Your task to perform on an android device: open chrome privacy settings Image 0: 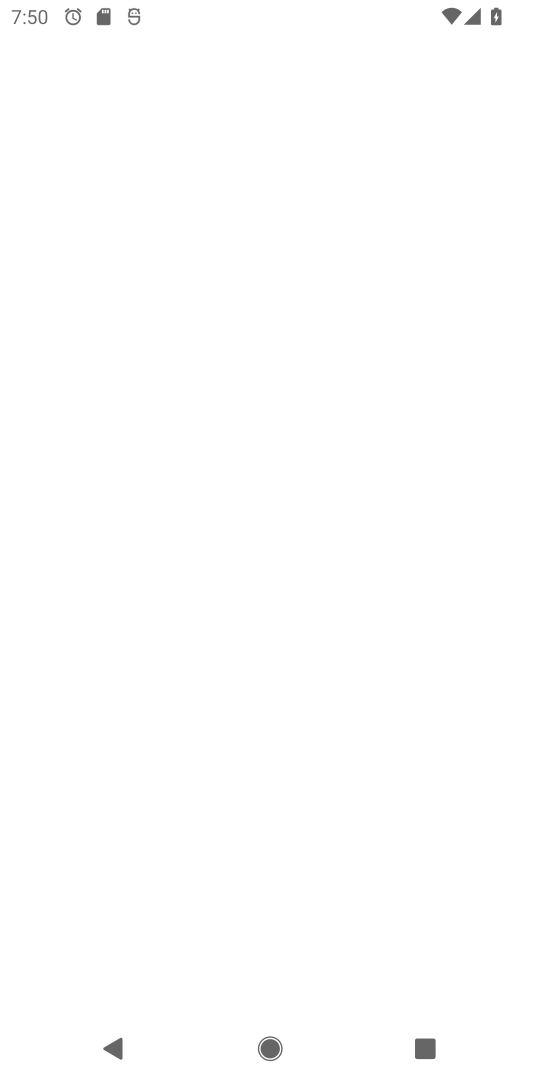
Step 0: press home button
Your task to perform on an android device: open chrome privacy settings Image 1: 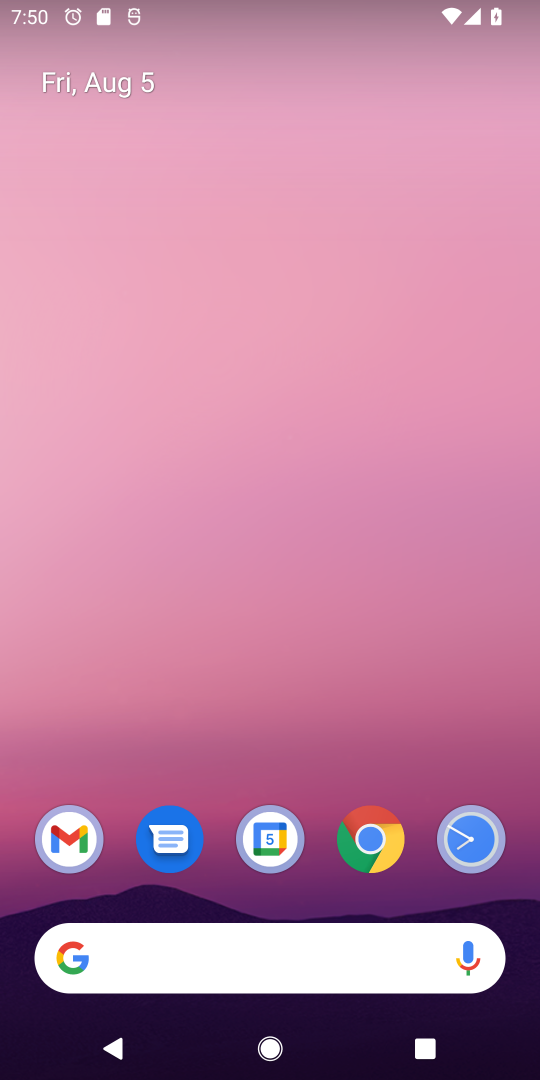
Step 1: click (363, 814)
Your task to perform on an android device: open chrome privacy settings Image 2: 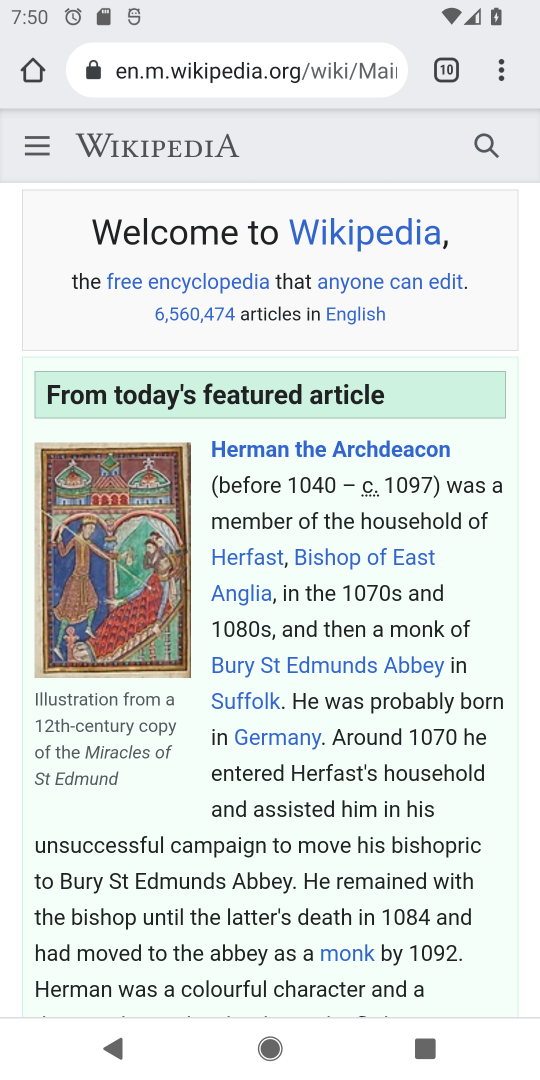
Step 2: click (503, 67)
Your task to perform on an android device: open chrome privacy settings Image 3: 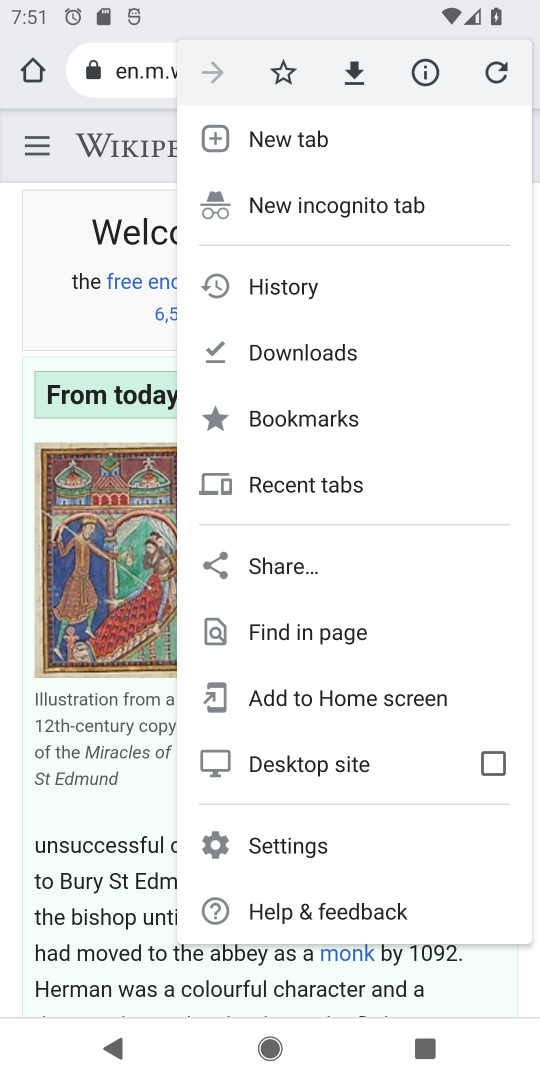
Step 3: click (305, 840)
Your task to perform on an android device: open chrome privacy settings Image 4: 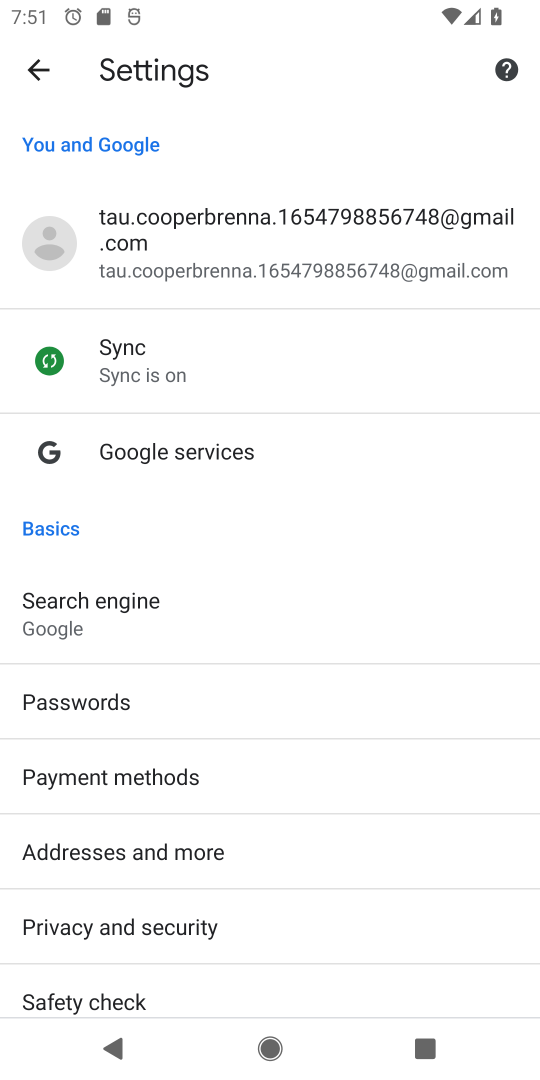
Step 4: drag from (241, 892) to (182, 444)
Your task to perform on an android device: open chrome privacy settings Image 5: 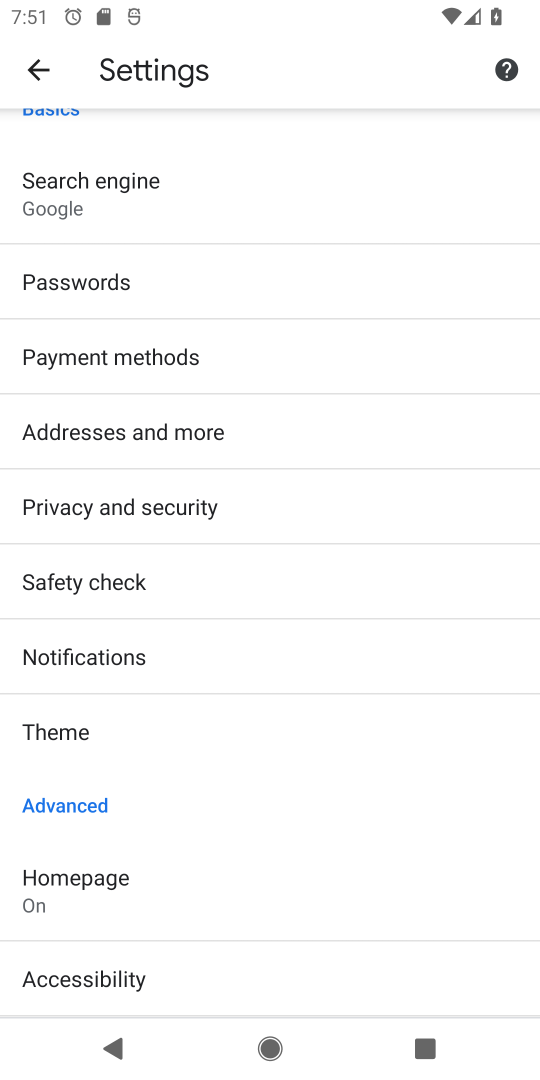
Step 5: drag from (182, 863) to (204, 348)
Your task to perform on an android device: open chrome privacy settings Image 6: 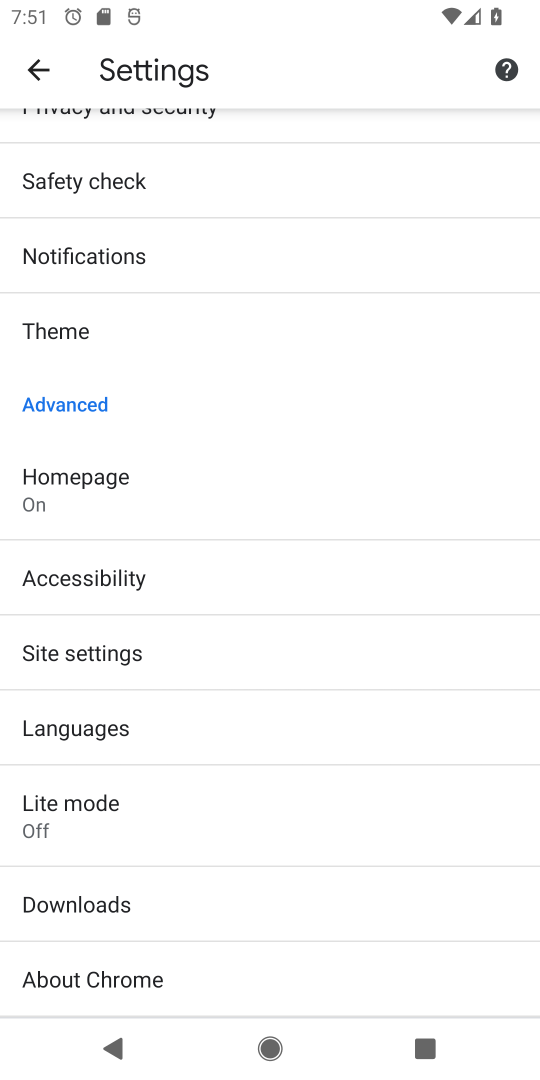
Step 6: drag from (231, 874) to (240, 307)
Your task to perform on an android device: open chrome privacy settings Image 7: 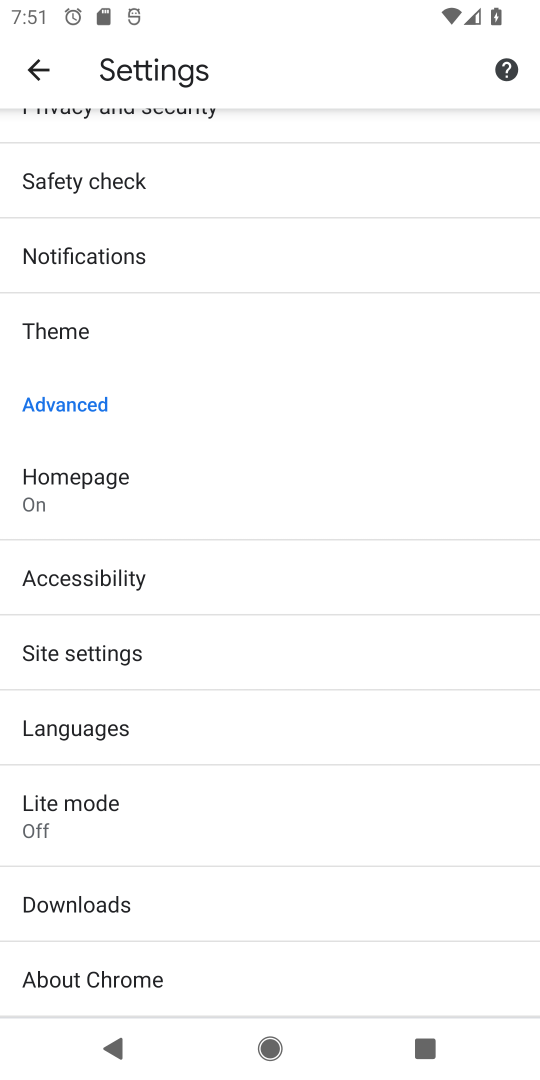
Step 7: drag from (240, 280) to (260, 794)
Your task to perform on an android device: open chrome privacy settings Image 8: 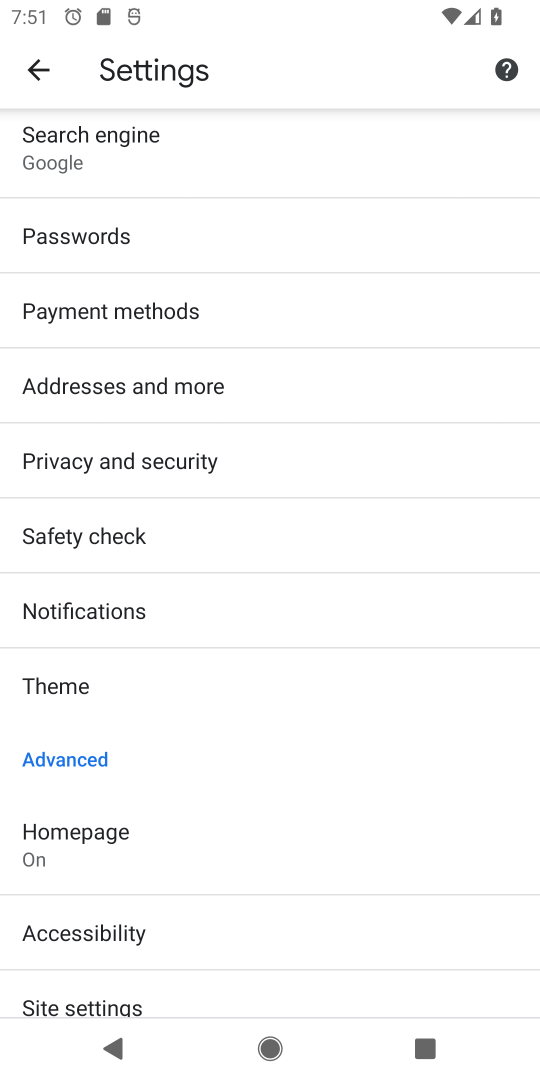
Step 8: drag from (211, 213) to (302, 709)
Your task to perform on an android device: open chrome privacy settings Image 9: 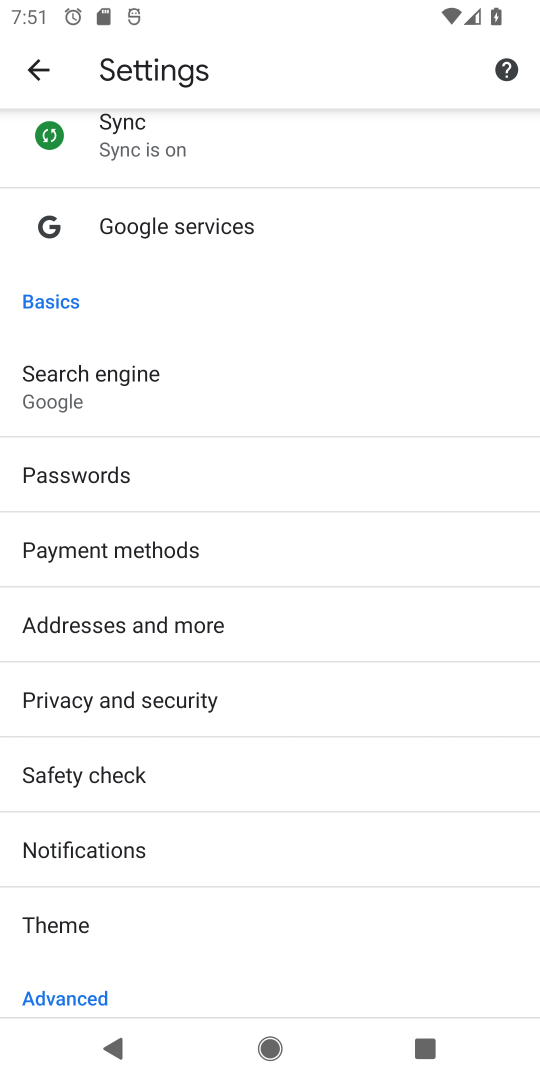
Step 9: click (242, 694)
Your task to perform on an android device: open chrome privacy settings Image 10: 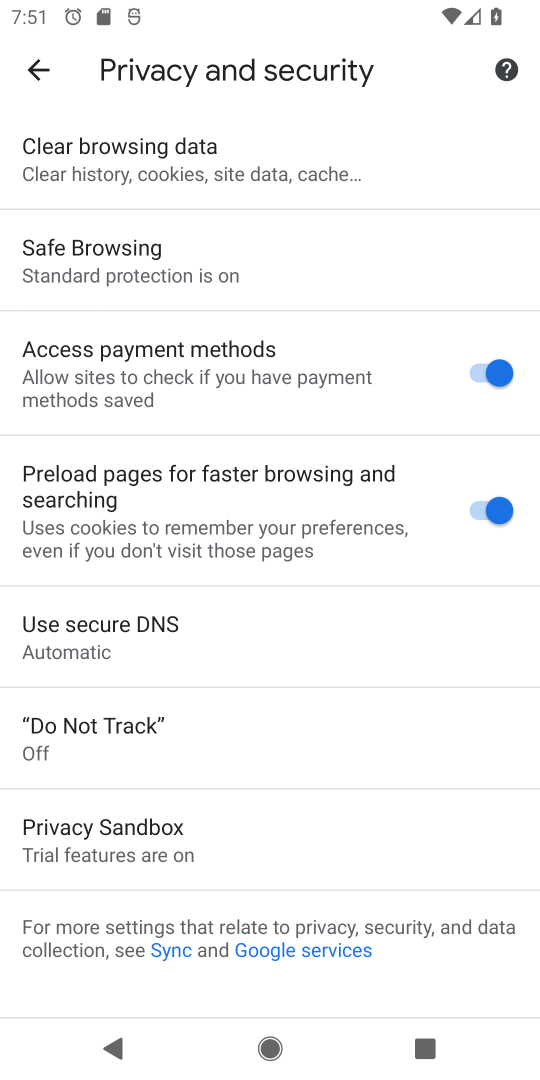
Step 10: task complete